Your task to perform on an android device: Open Wikipedia Image 0: 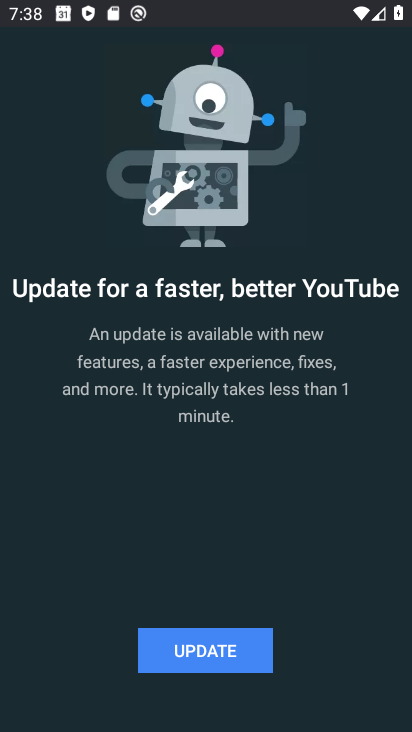
Step 0: press home button
Your task to perform on an android device: Open Wikipedia Image 1: 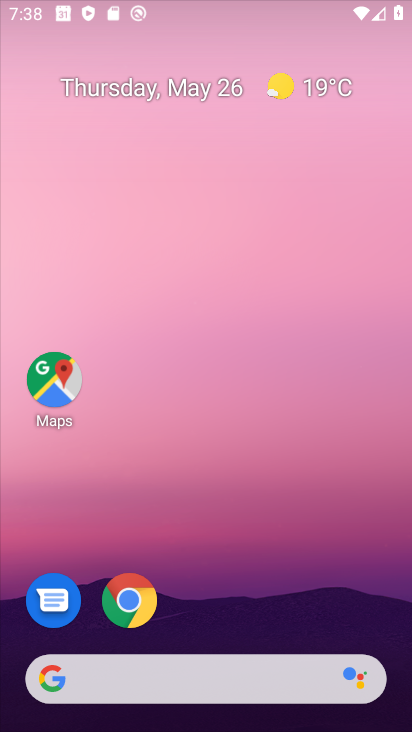
Step 1: drag from (342, 688) to (278, 183)
Your task to perform on an android device: Open Wikipedia Image 2: 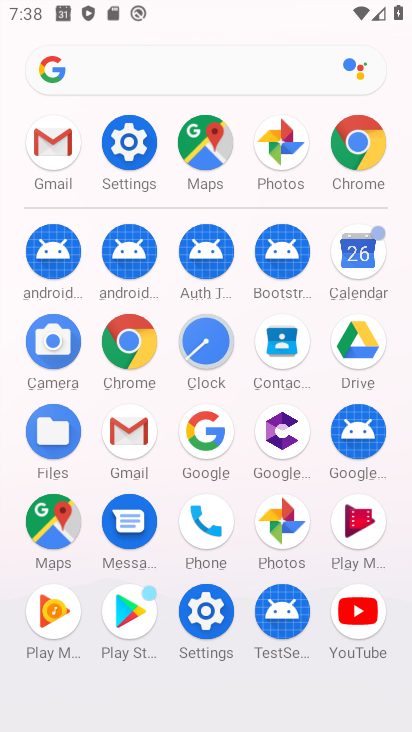
Step 2: click (340, 151)
Your task to perform on an android device: Open Wikipedia Image 3: 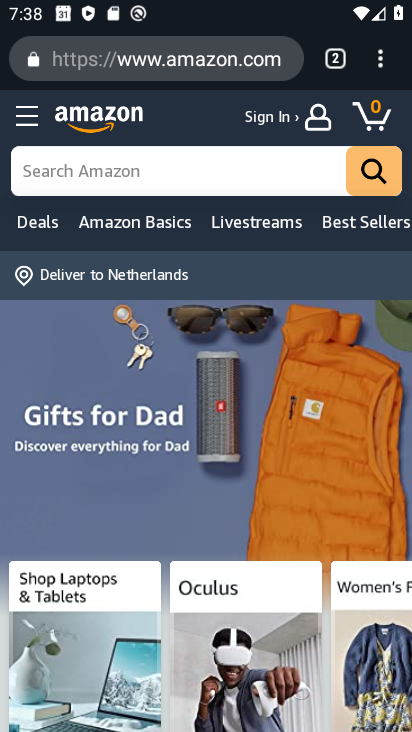
Step 3: click (325, 65)
Your task to perform on an android device: Open Wikipedia Image 4: 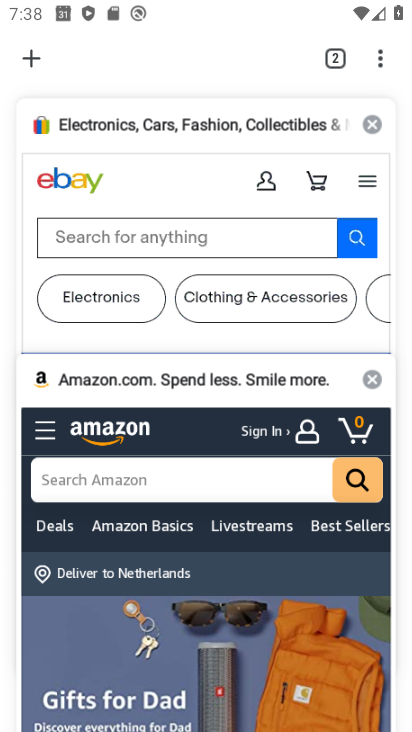
Step 4: click (45, 58)
Your task to perform on an android device: Open Wikipedia Image 5: 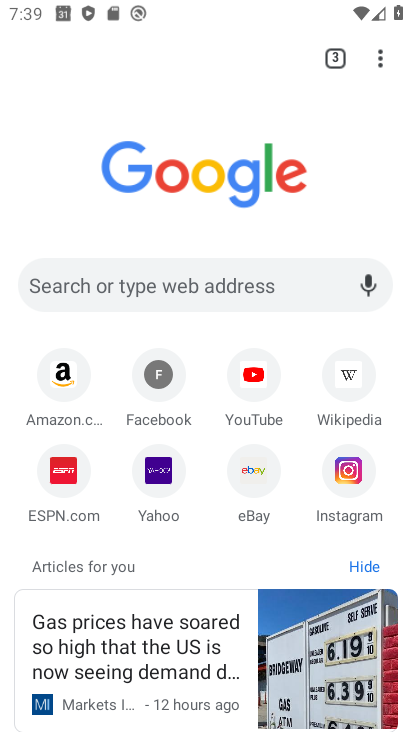
Step 5: click (353, 379)
Your task to perform on an android device: Open Wikipedia Image 6: 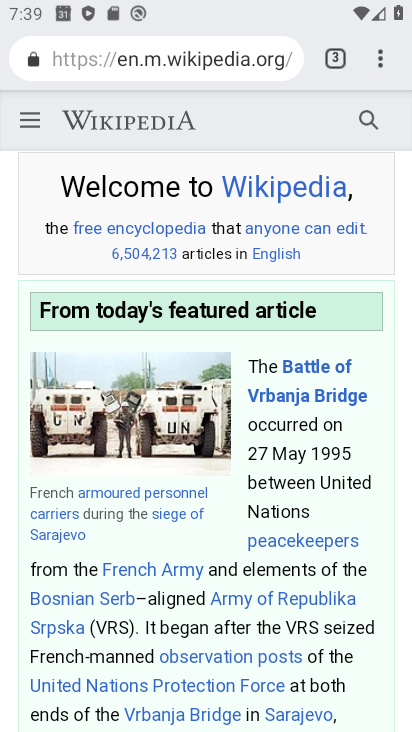
Step 6: task complete